Your task to perform on an android device: turn off notifications settings in the gmail app Image 0: 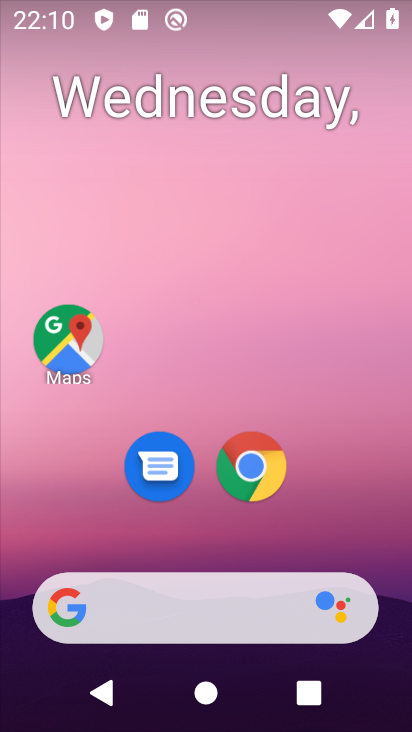
Step 0: drag from (221, 11) to (263, 26)
Your task to perform on an android device: turn off notifications settings in the gmail app Image 1: 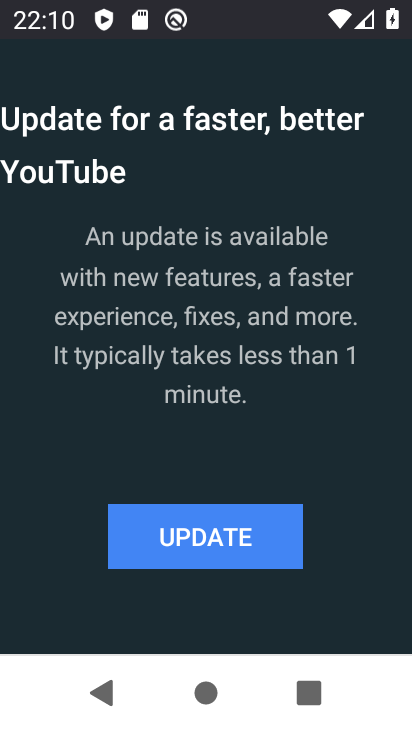
Step 1: press home button
Your task to perform on an android device: turn off notifications settings in the gmail app Image 2: 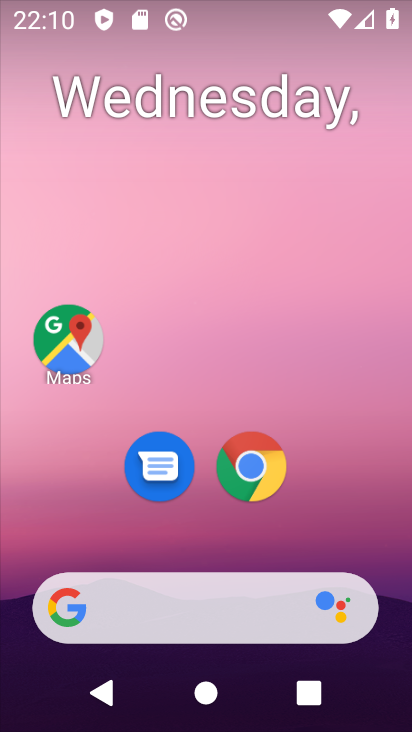
Step 2: drag from (211, 549) to (229, 100)
Your task to perform on an android device: turn off notifications settings in the gmail app Image 3: 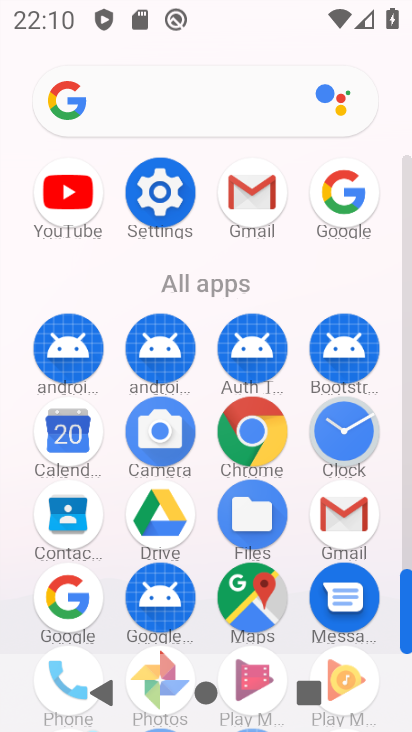
Step 3: click (344, 505)
Your task to perform on an android device: turn off notifications settings in the gmail app Image 4: 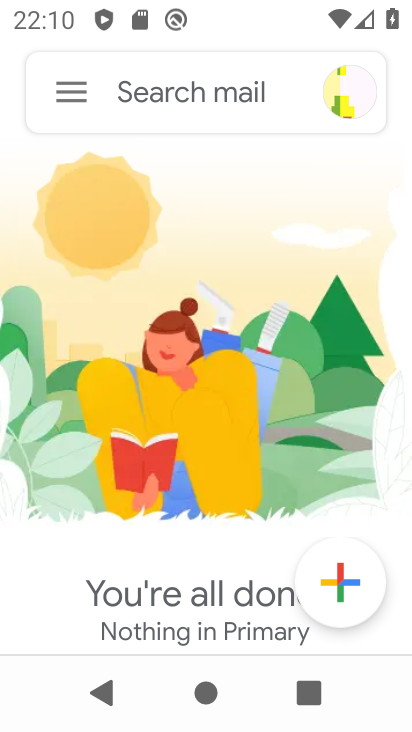
Step 4: click (68, 85)
Your task to perform on an android device: turn off notifications settings in the gmail app Image 5: 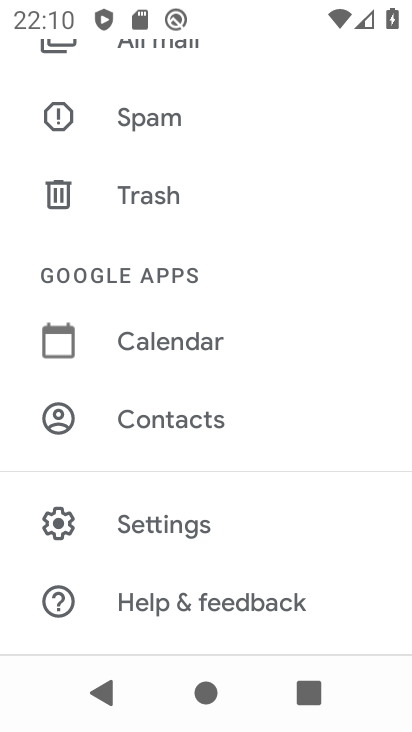
Step 5: click (221, 520)
Your task to perform on an android device: turn off notifications settings in the gmail app Image 6: 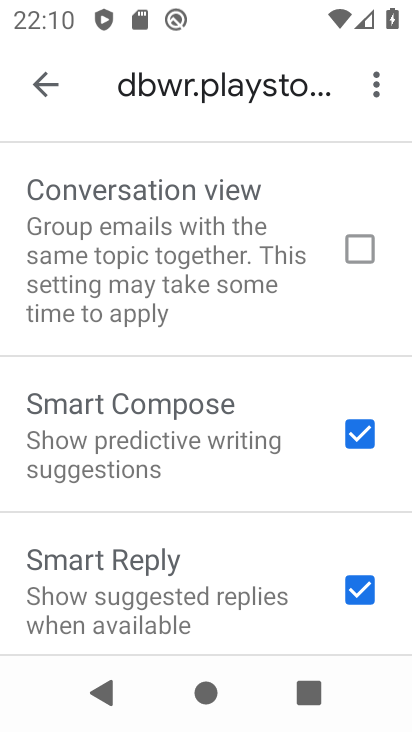
Step 6: click (48, 89)
Your task to perform on an android device: turn off notifications settings in the gmail app Image 7: 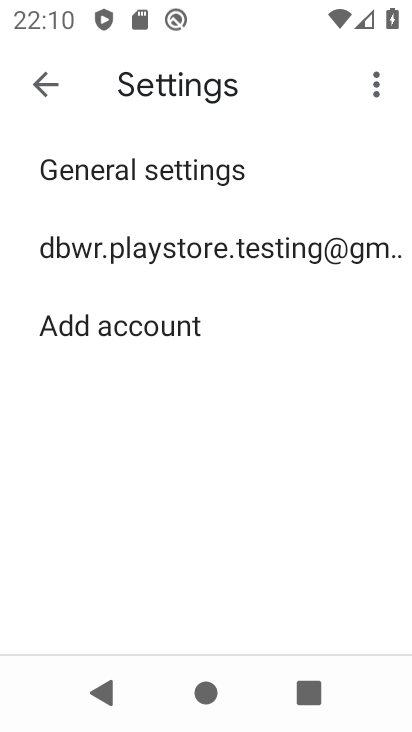
Step 7: click (257, 170)
Your task to perform on an android device: turn off notifications settings in the gmail app Image 8: 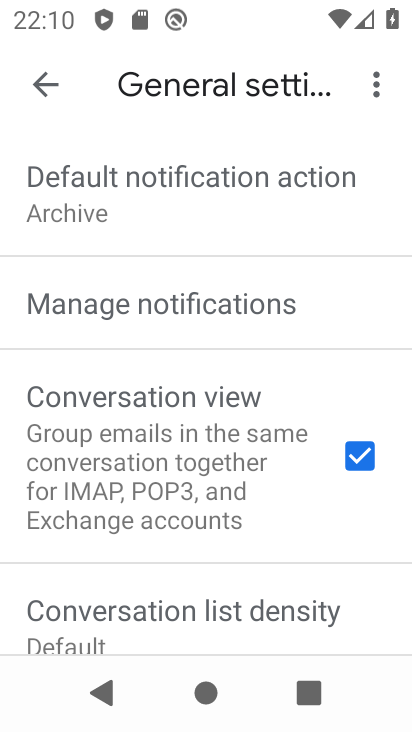
Step 8: click (239, 314)
Your task to perform on an android device: turn off notifications settings in the gmail app Image 9: 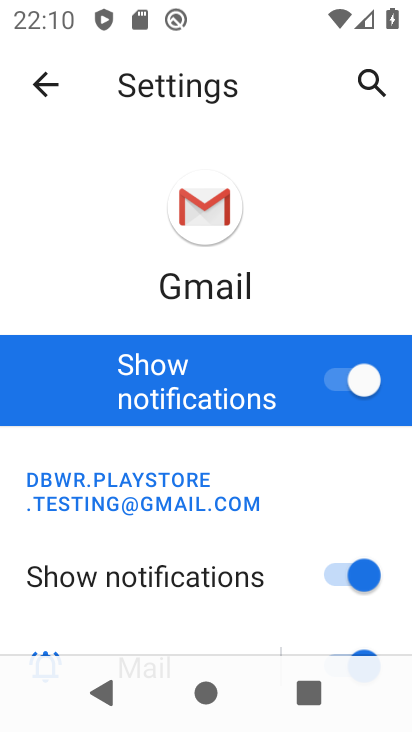
Step 9: click (339, 377)
Your task to perform on an android device: turn off notifications settings in the gmail app Image 10: 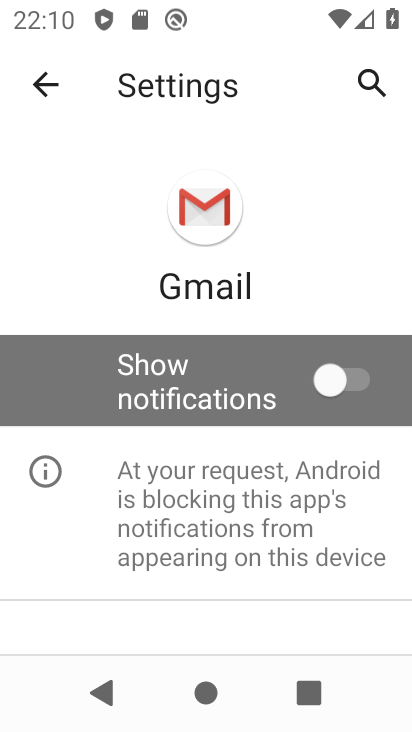
Step 10: task complete